Your task to perform on an android device: open the mobile data screen to see how much data has been used Image 0: 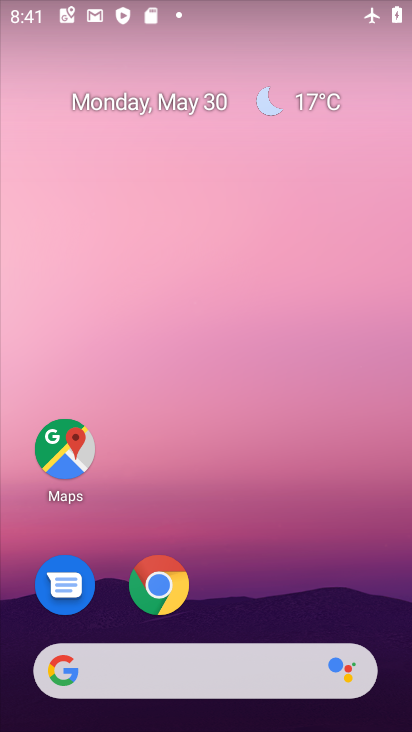
Step 0: drag from (254, 313) to (283, 73)
Your task to perform on an android device: open the mobile data screen to see how much data has been used Image 1: 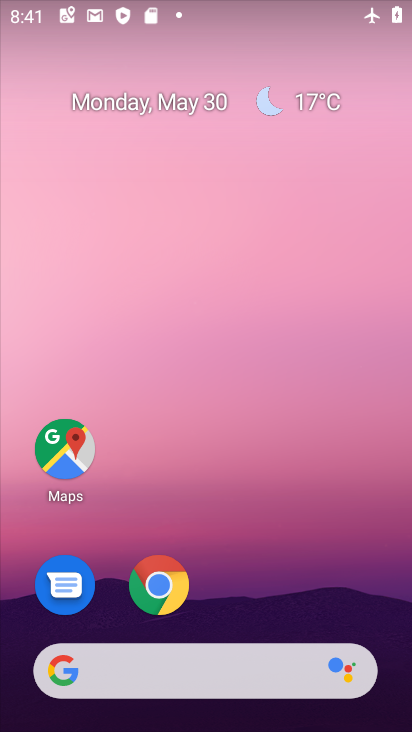
Step 1: drag from (281, 621) to (327, 0)
Your task to perform on an android device: open the mobile data screen to see how much data has been used Image 2: 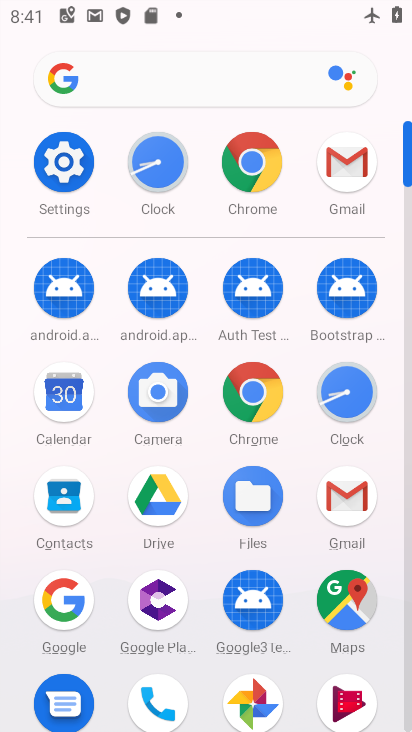
Step 2: click (54, 166)
Your task to perform on an android device: open the mobile data screen to see how much data has been used Image 3: 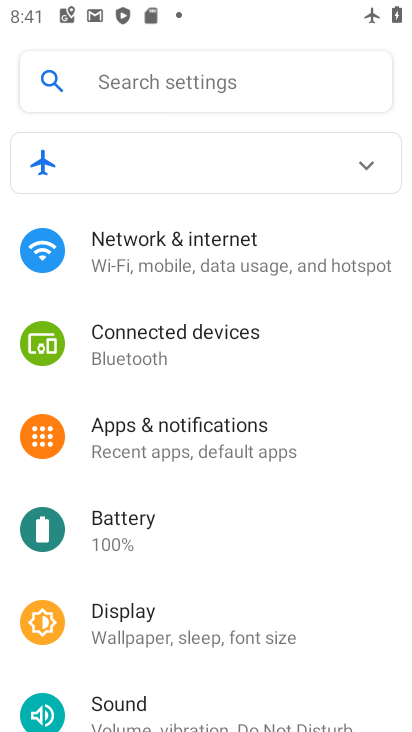
Step 3: click (130, 254)
Your task to perform on an android device: open the mobile data screen to see how much data has been used Image 4: 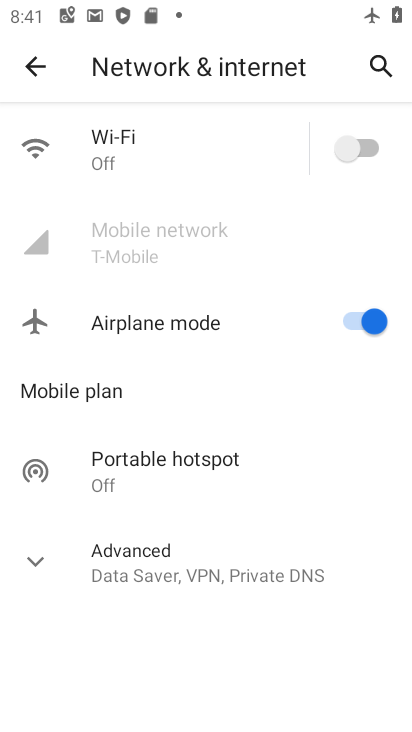
Step 4: click (266, 213)
Your task to perform on an android device: open the mobile data screen to see how much data has been used Image 5: 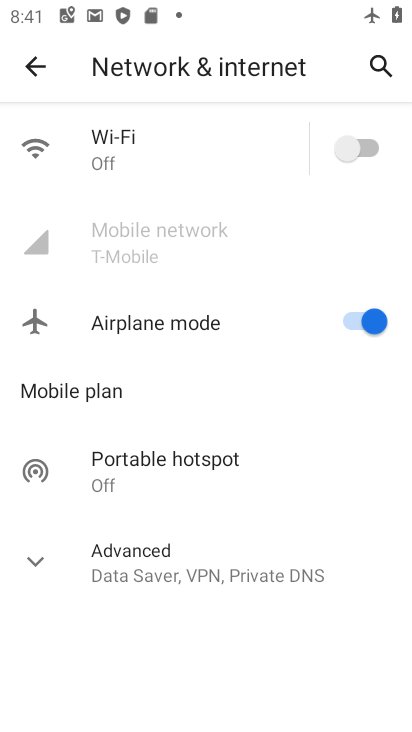
Step 5: click (167, 244)
Your task to perform on an android device: open the mobile data screen to see how much data has been used Image 6: 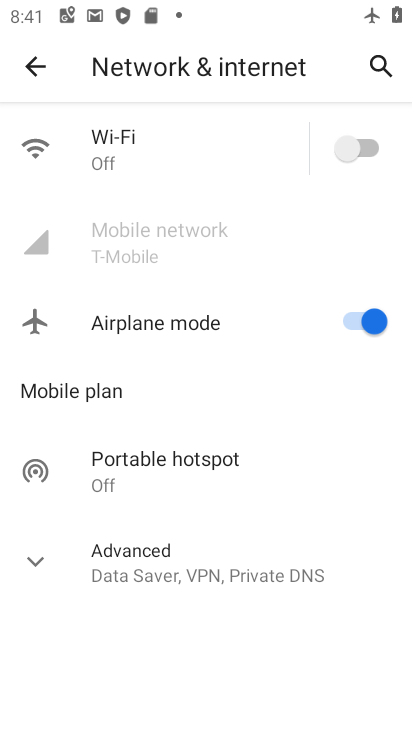
Step 6: task complete